Your task to perform on an android device: clear all cookies in the chrome app Image 0: 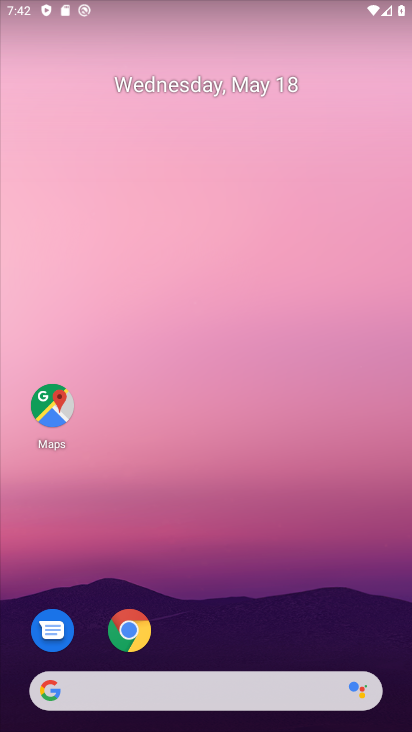
Step 0: click (124, 630)
Your task to perform on an android device: clear all cookies in the chrome app Image 1: 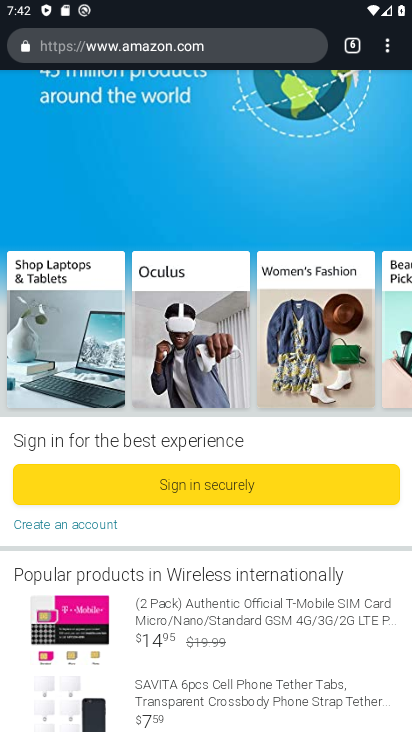
Step 1: click (387, 47)
Your task to perform on an android device: clear all cookies in the chrome app Image 2: 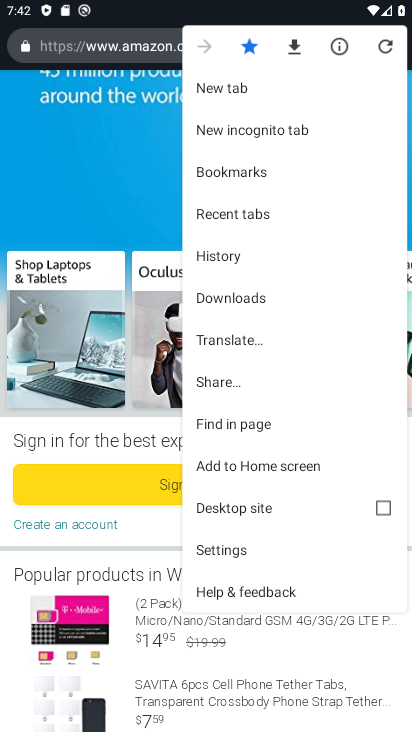
Step 2: click (228, 255)
Your task to perform on an android device: clear all cookies in the chrome app Image 3: 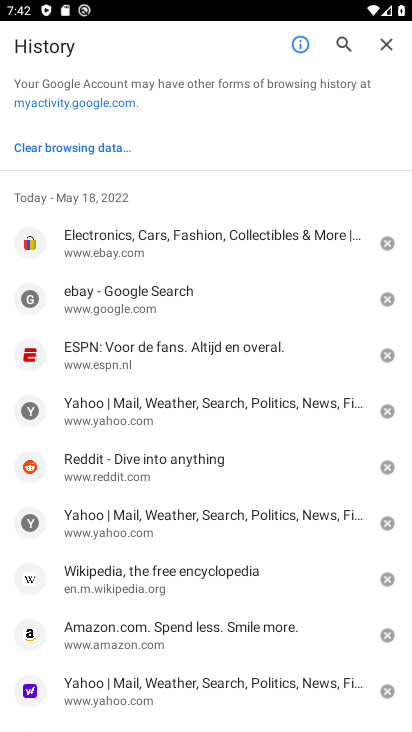
Step 3: click (86, 149)
Your task to perform on an android device: clear all cookies in the chrome app Image 4: 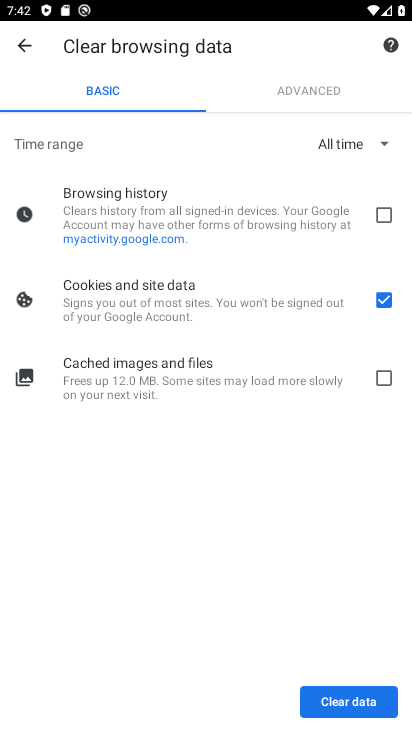
Step 4: click (356, 699)
Your task to perform on an android device: clear all cookies in the chrome app Image 5: 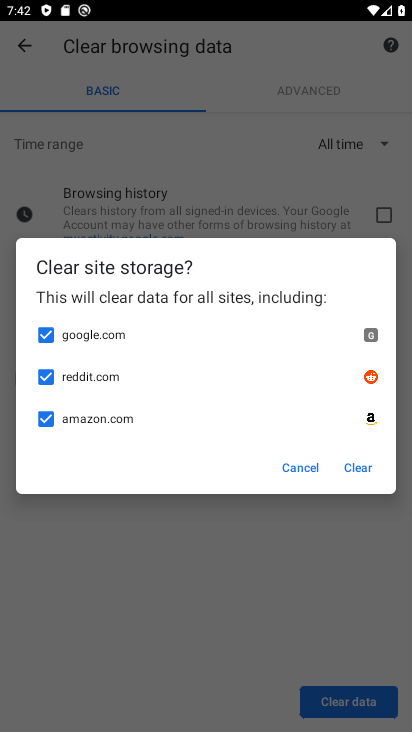
Step 5: click (356, 466)
Your task to perform on an android device: clear all cookies in the chrome app Image 6: 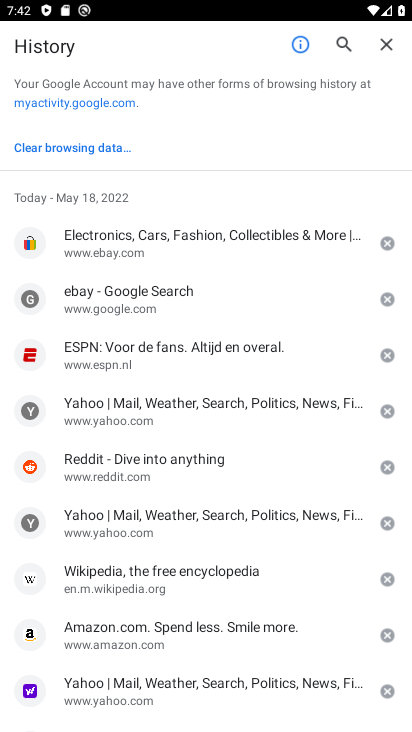
Step 6: task complete